Your task to perform on an android device: delete browsing data in the chrome app Image 0: 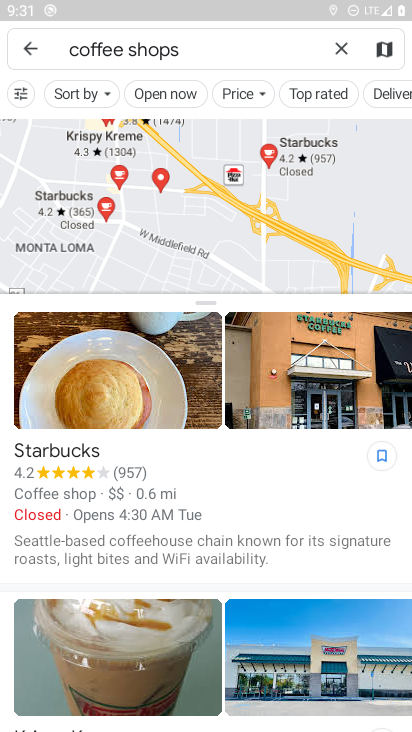
Step 0: press home button
Your task to perform on an android device: delete browsing data in the chrome app Image 1: 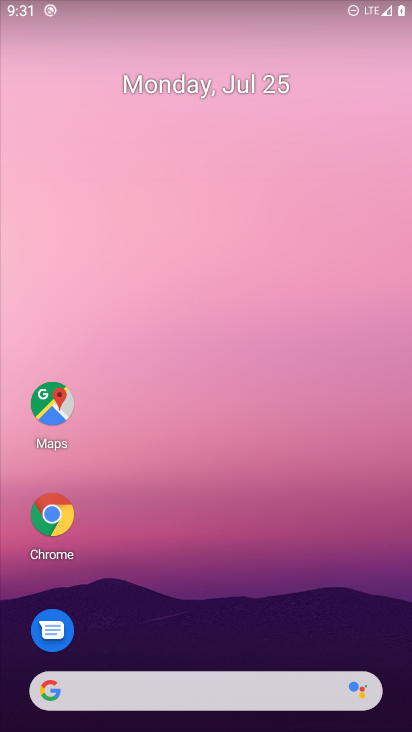
Step 1: click (59, 519)
Your task to perform on an android device: delete browsing data in the chrome app Image 2: 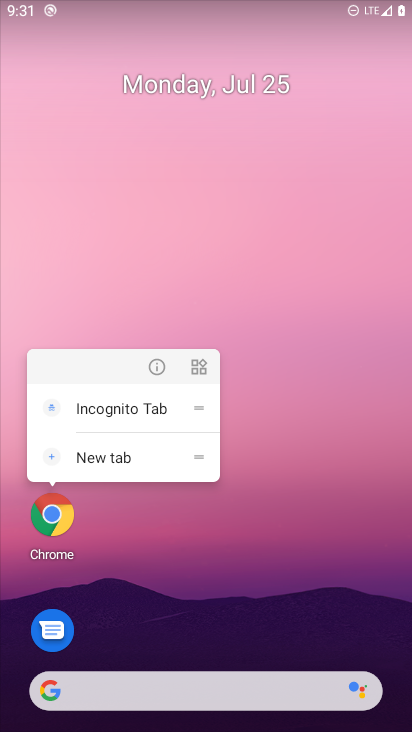
Step 2: click (62, 521)
Your task to perform on an android device: delete browsing data in the chrome app Image 3: 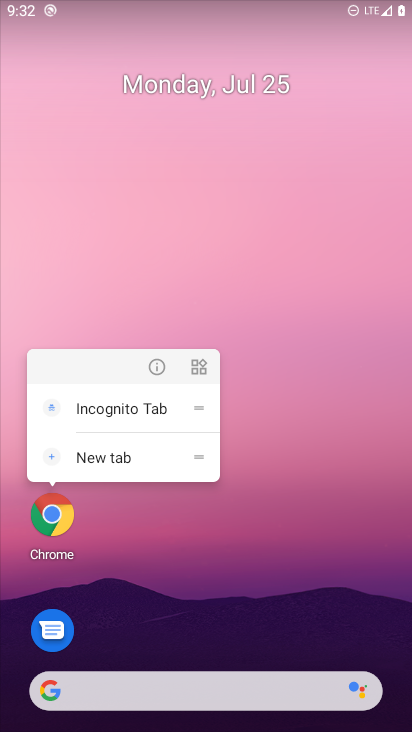
Step 3: click (62, 521)
Your task to perform on an android device: delete browsing data in the chrome app Image 4: 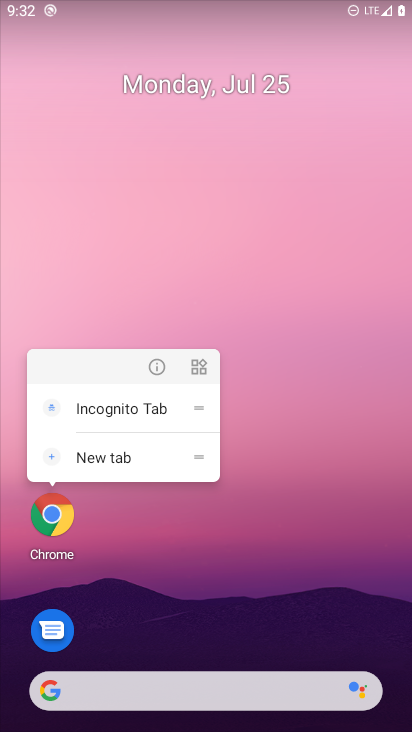
Step 4: click (41, 529)
Your task to perform on an android device: delete browsing data in the chrome app Image 5: 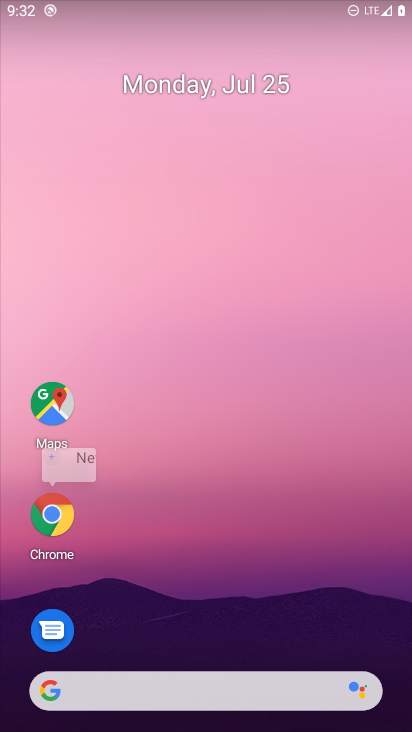
Step 5: click (57, 505)
Your task to perform on an android device: delete browsing data in the chrome app Image 6: 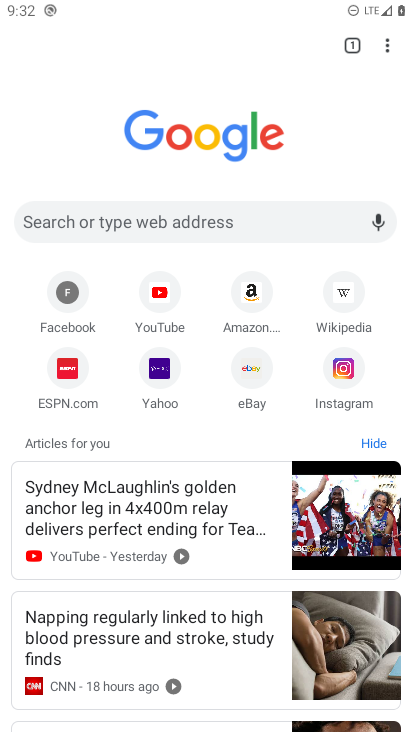
Step 6: click (395, 42)
Your task to perform on an android device: delete browsing data in the chrome app Image 7: 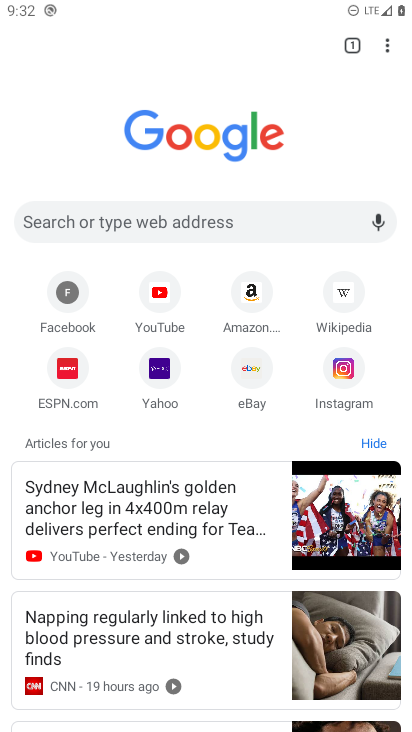
Step 7: click (393, 43)
Your task to perform on an android device: delete browsing data in the chrome app Image 8: 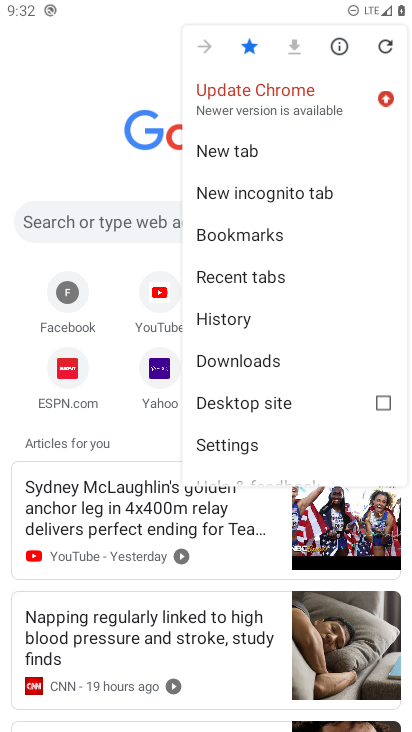
Step 8: click (231, 323)
Your task to perform on an android device: delete browsing data in the chrome app Image 9: 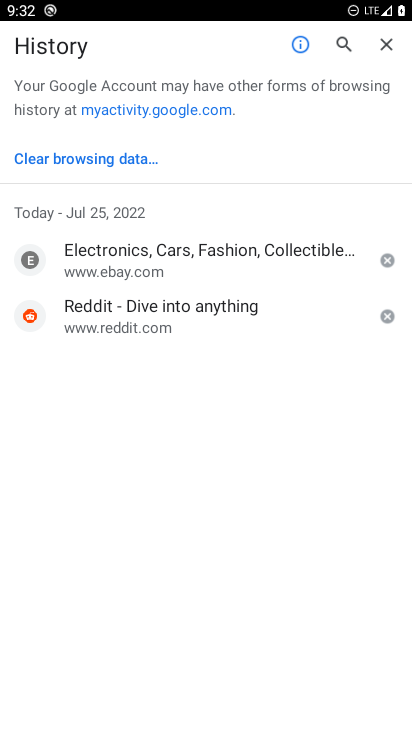
Step 9: click (107, 156)
Your task to perform on an android device: delete browsing data in the chrome app Image 10: 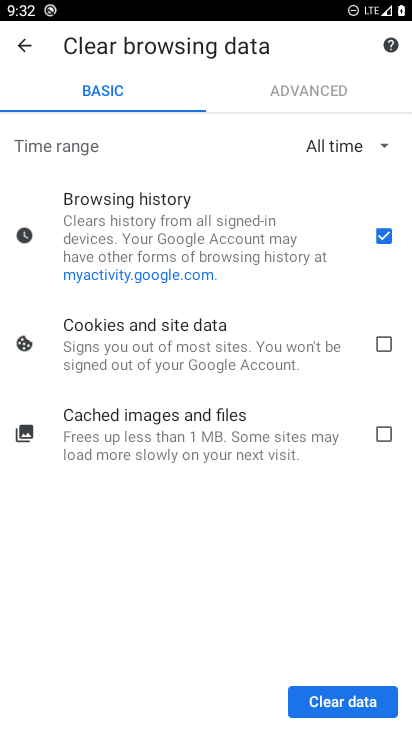
Step 10: click (332, 700)
Your task to perform on an android device: delete browsing data in the chrome app Image 11: 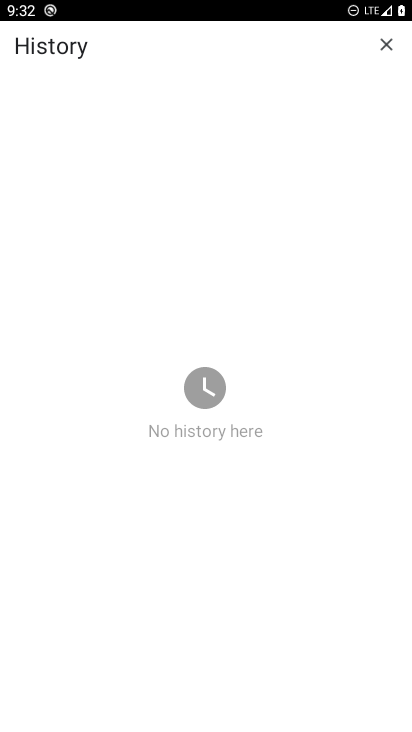
Step 11: task complete